Your task to perform on an android device: show emergency info Image 0: 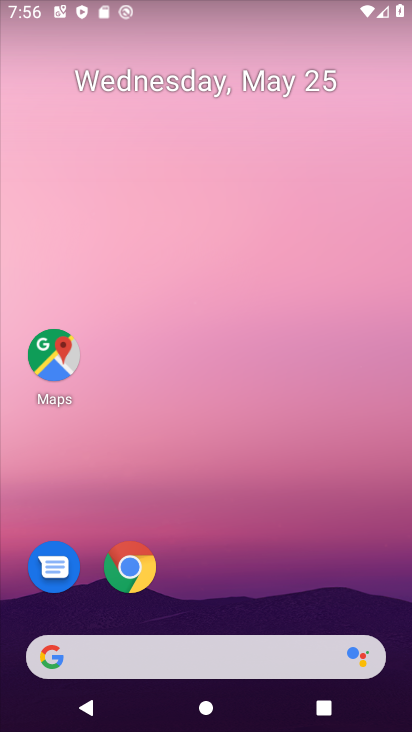
Step 0: drag from (366, 582) to (254, 80)
Your task to perform on an android device: show emergency info Image 1: 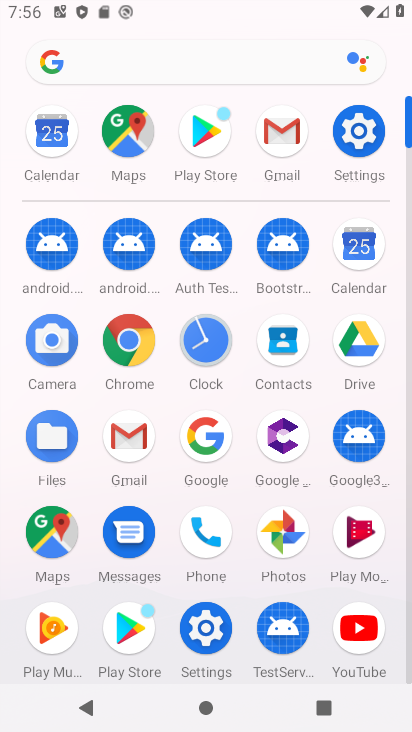
Step 1: click (363, 120)
Your task to perform on an android device: show emergency info Image 2: 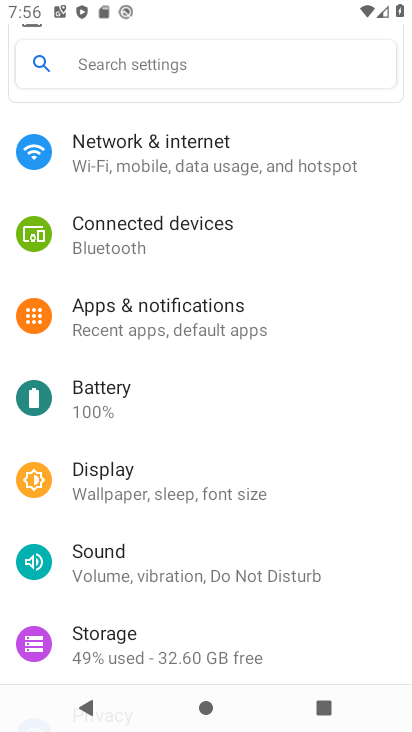
Step 2: drag from (225, 554) to (217, 94)
Your task to perform on an android device: show emergency info Image 3: 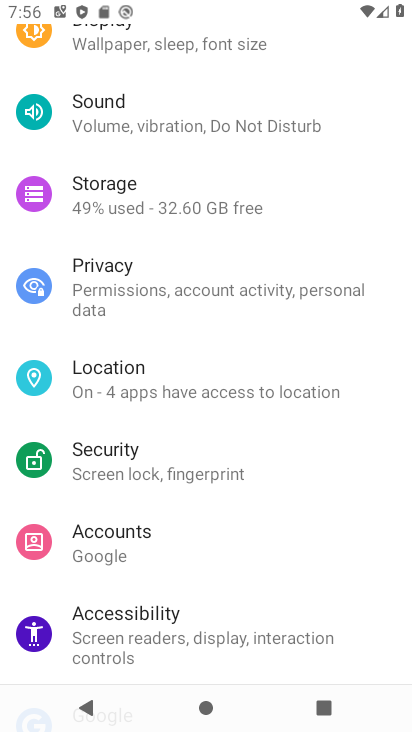
Step 3: drag from (222, 552) to (182, 241)
Your task to perform on an android device: show emergency info Image 4: 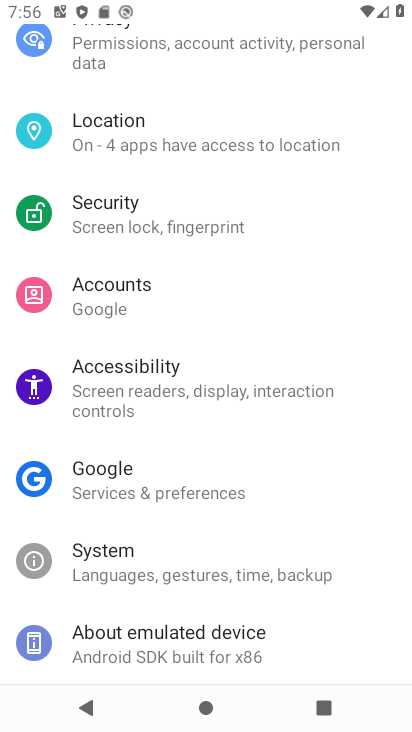
Step 4: drag from (174, 610) to (174, 454)
Your task to perform on an android device: show emergency info Image 5: 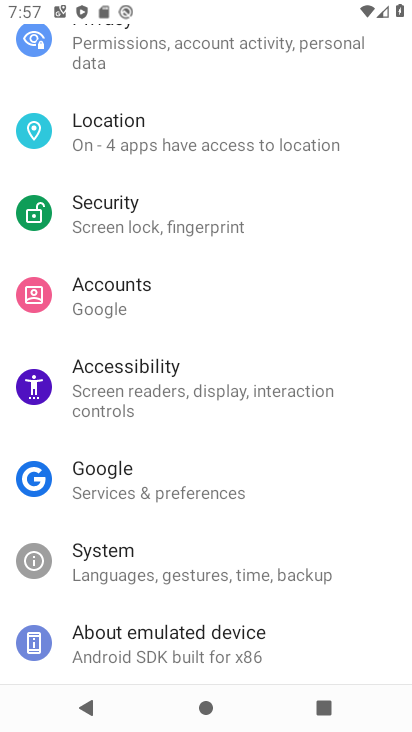
Step 5: click (200, 621)
Your task to perform on an android device: show emergency info Image 6: 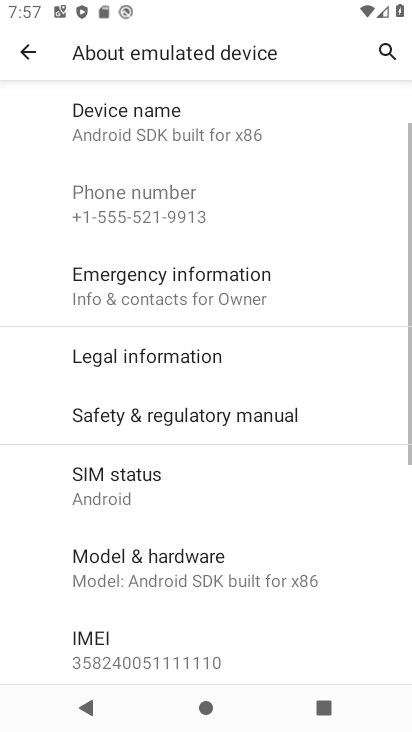
Step 6: click (158, 288)
Your task to perform on an android device: show emergency info Image 7: 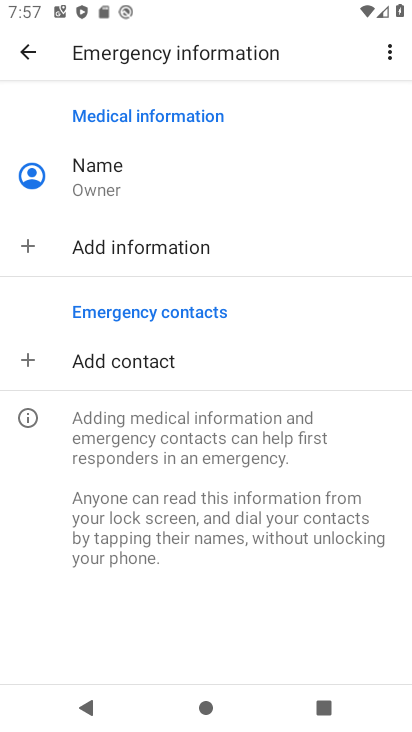
Step 7: task complete